Your task to perform on an android device: turn on notifications settings in the gmail app Image 0: 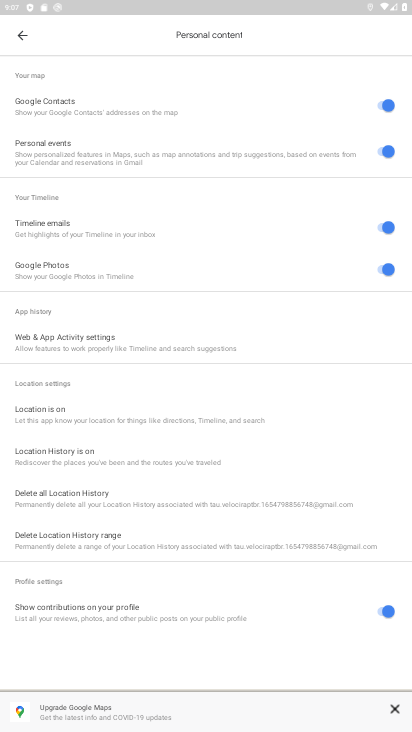
Step 0: press home button
Your task to perform on an android device: turn on notifications settings in the gmail app Image 1: 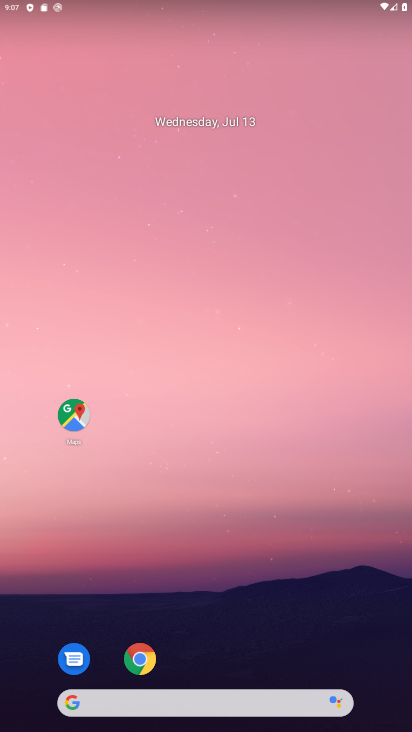
Step 1: drag from (393, 666) to (340, 43)
Your task to perform on an android device: turn on notifications settings in the gmail app Image 2: 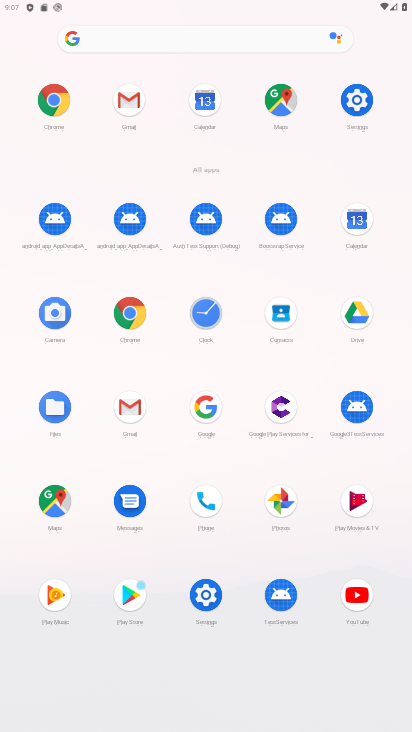
Step 2: click (129, 407)
Your task to perform on an android device: turn on notifications settings in the gmail app Image 3: 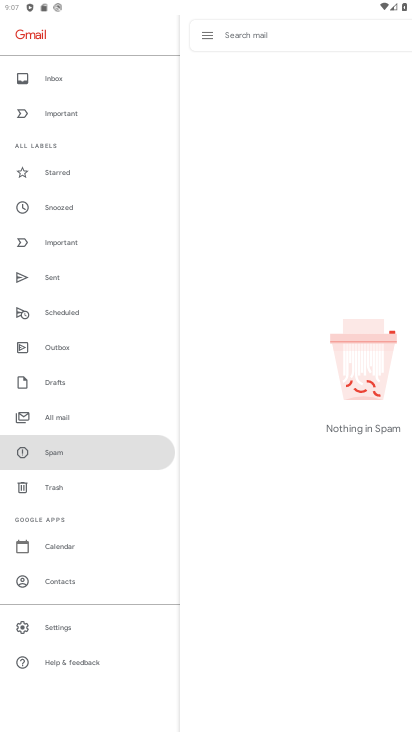
Step 3: click (58, 623)
Your task to perform on an android device: turn on notifications settings in the gmail app Image 4: 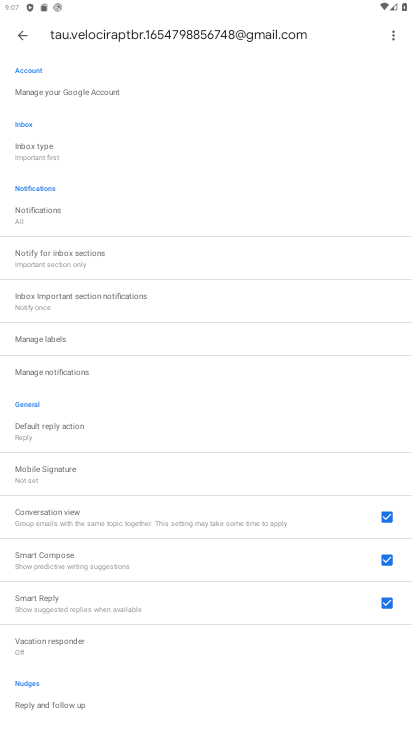
Step 4: click (38, 371)
Your task to perform on an android device: turn on notifications settings in the gmail app Image 5: 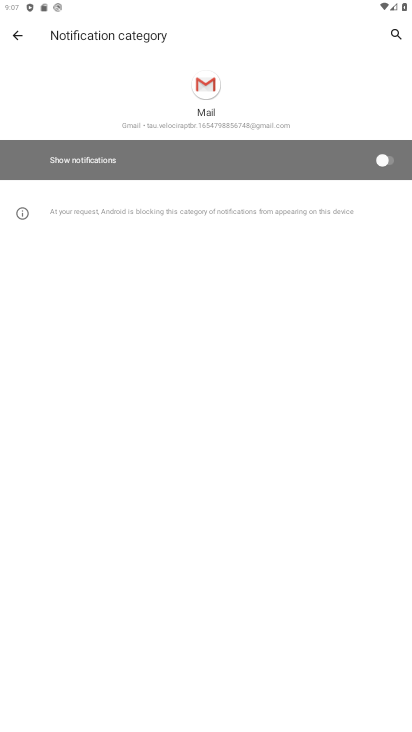
Step 5: click (380, 168)
Your task to perform on an android device: turn on notifications settings in the gmail app Image 6: 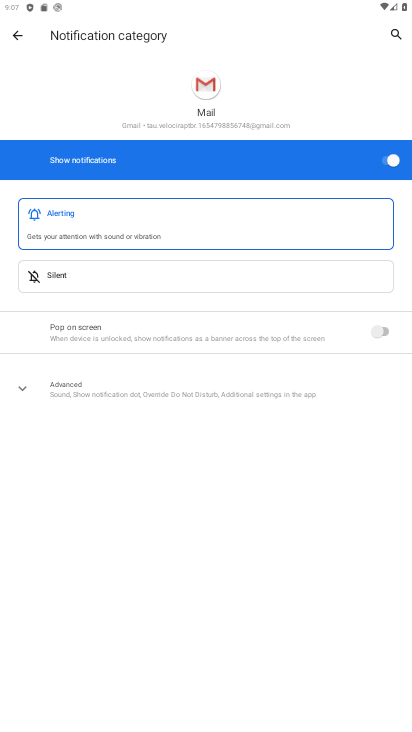
Step 6: task complete